Your task to perform on an android device: When is my next appointment? Image 0: 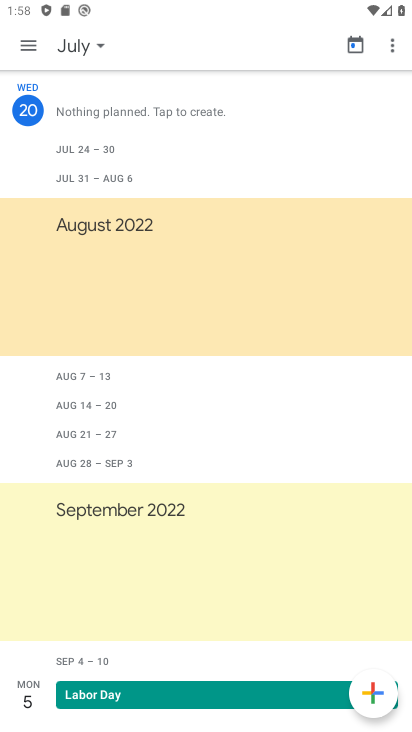
Step 0: click (18, 37)
Your task to perform on an android device: When is my next appointment? Image 1: 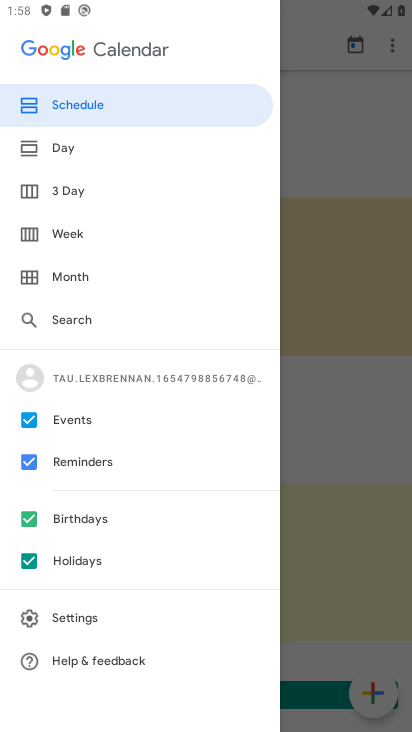
Step 1: click (56, 105)
Your task to perform on an android device: When is my next appointment? Image 2: 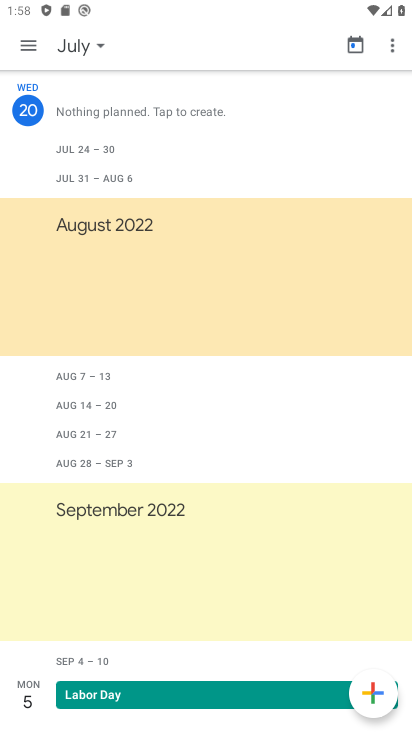
Step 2: task complete